Your task to perform on an android device: Go to location settings Image 0: 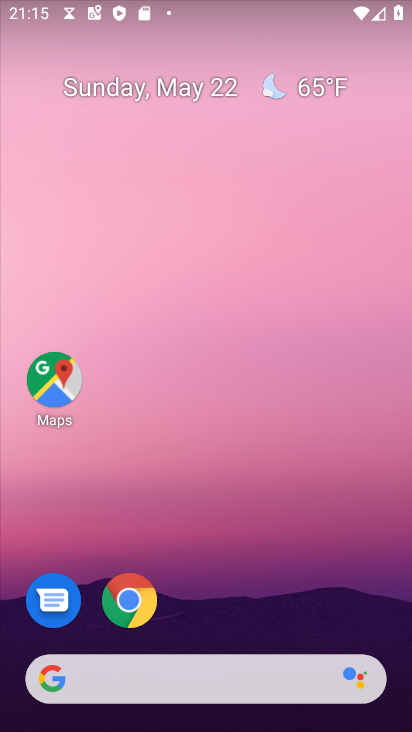
Step 0: drag from (179, 625) to (146, 307)
Your task to perform on an android device: Go to location settings Image 1: 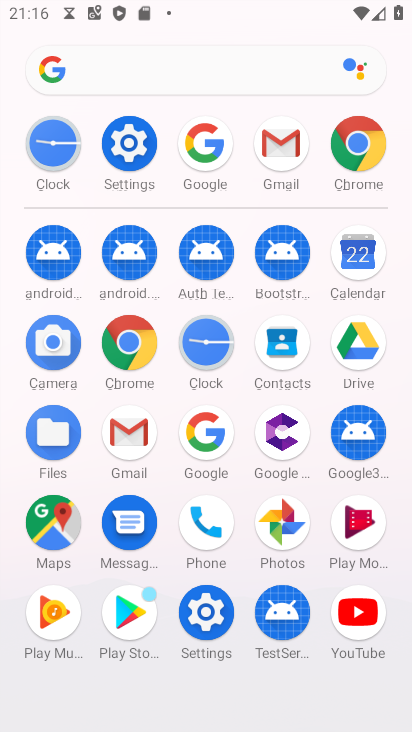
Step 1: click (197, 627)
Your task to perform on an android device: Go to location settings Image 2: 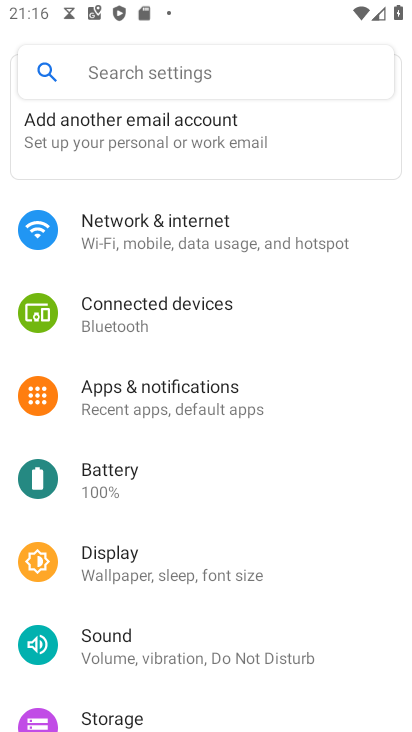
Step 2: drag from (158, 674) to (160, 322)
Your task to perform on an android device: Go to location settings Image 3: 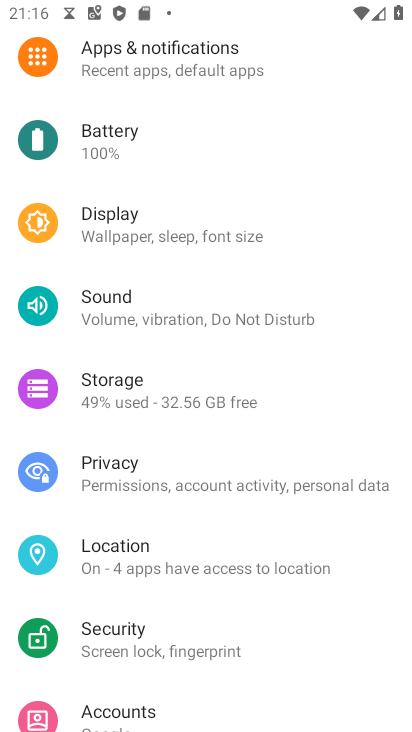
Step 3: click (154, 565)
Your task to perform on an android device: Go to location settings Image 4: 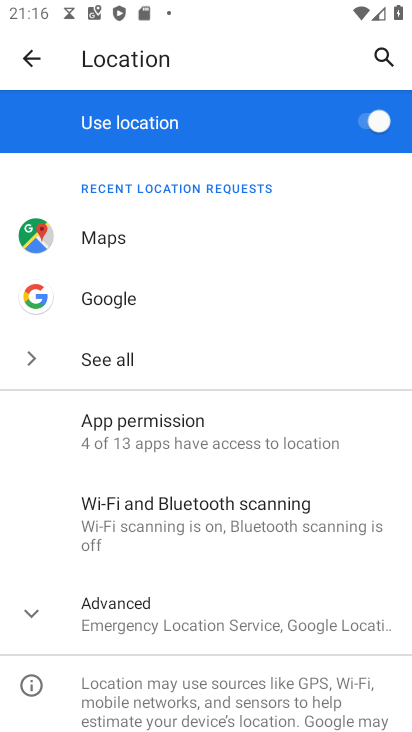
Step 4: task complete